Your task to perform on an android device: open app "Pandora - Music & Podcasts" (install if not already installed) and enter user name: "creator@yahoo.com" and password: "valuable" Image 0: 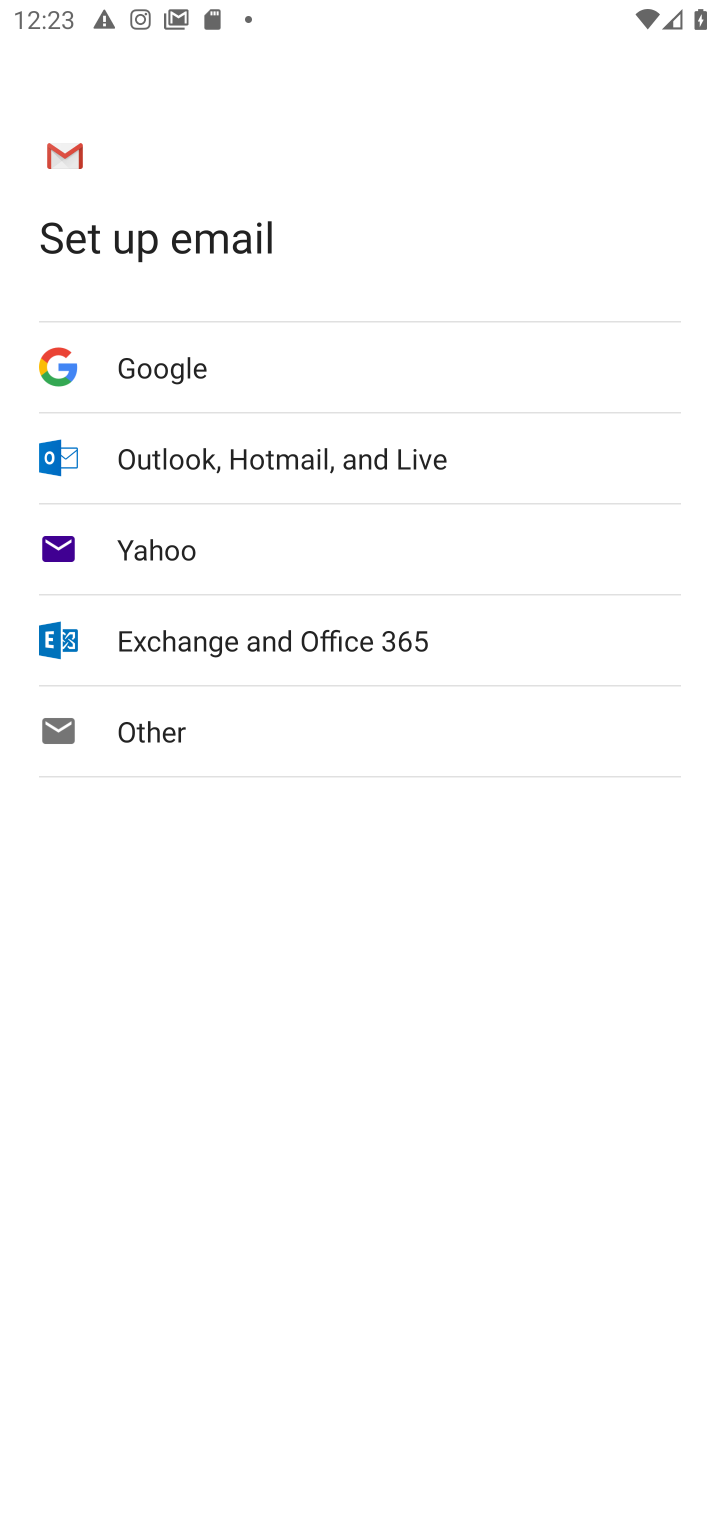
Step 0: press home button
Your task to perform on an android device: open app "Pandora - Music & Podcasts" (install if not already installed) and enter user name: "creator@yahoo.com" and password: "valuable" Image 1: 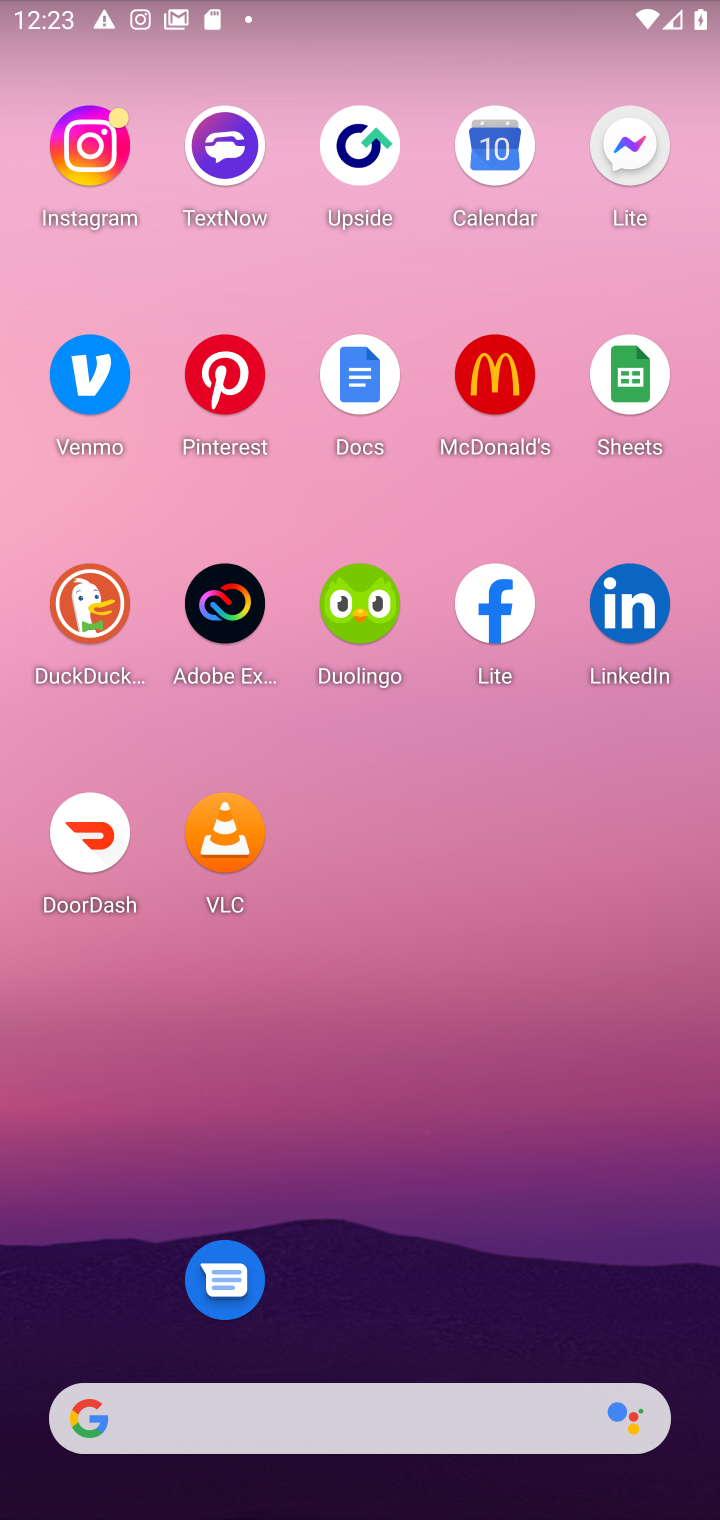
Step 1: drag from (210, 681) to (703, 687)
Your task to perform on an android device: open app "Pandora - Music & Podcasts" (install if not already installed) and enter user name: "creator@yahoo.com" and password: "valuable" Image 2: 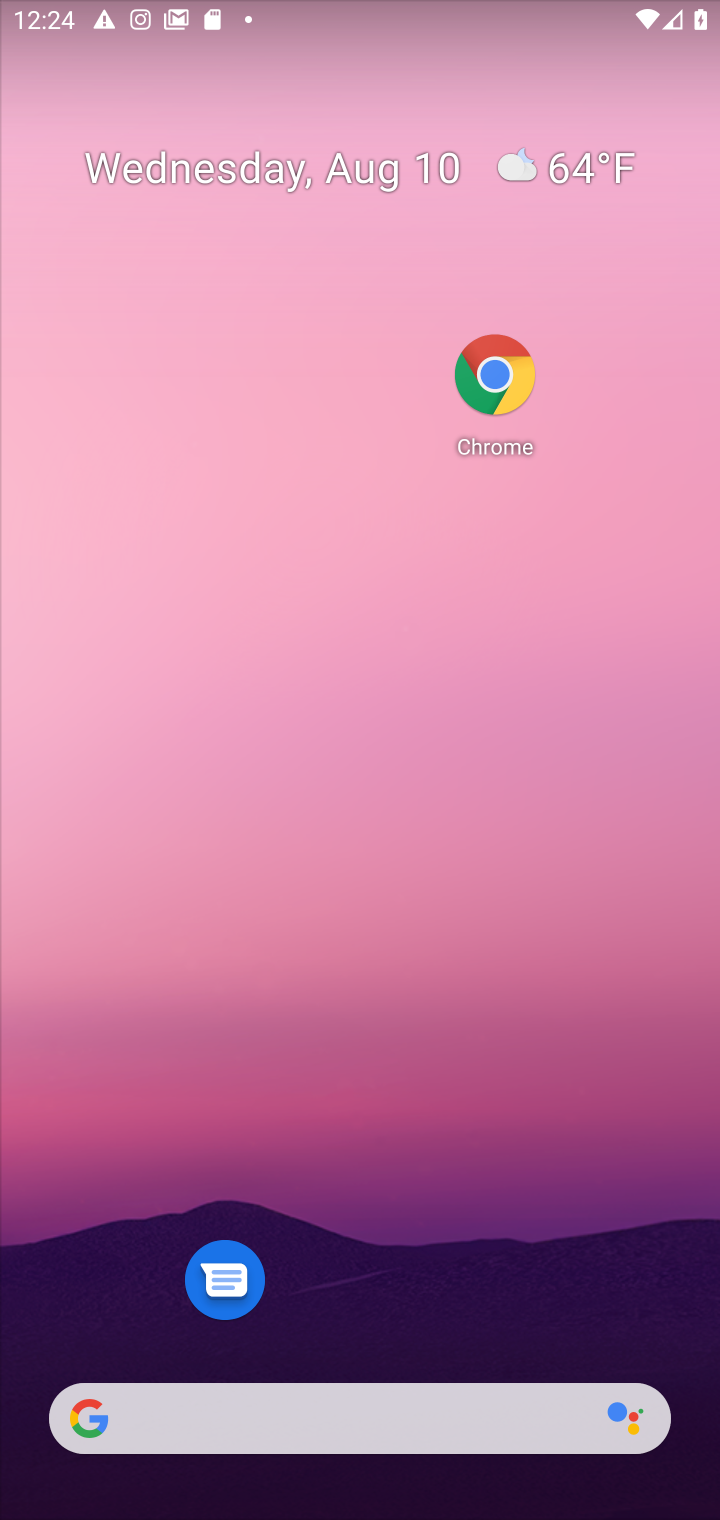
Step 2: drag from (438, 1285) to (275, 76)
Your task to perform on an android device: open app "Pandora - Music & Podcasts" (install if not already installed) and enter user name: "creator@yahoo.com" and password: "valuable" Image 3: 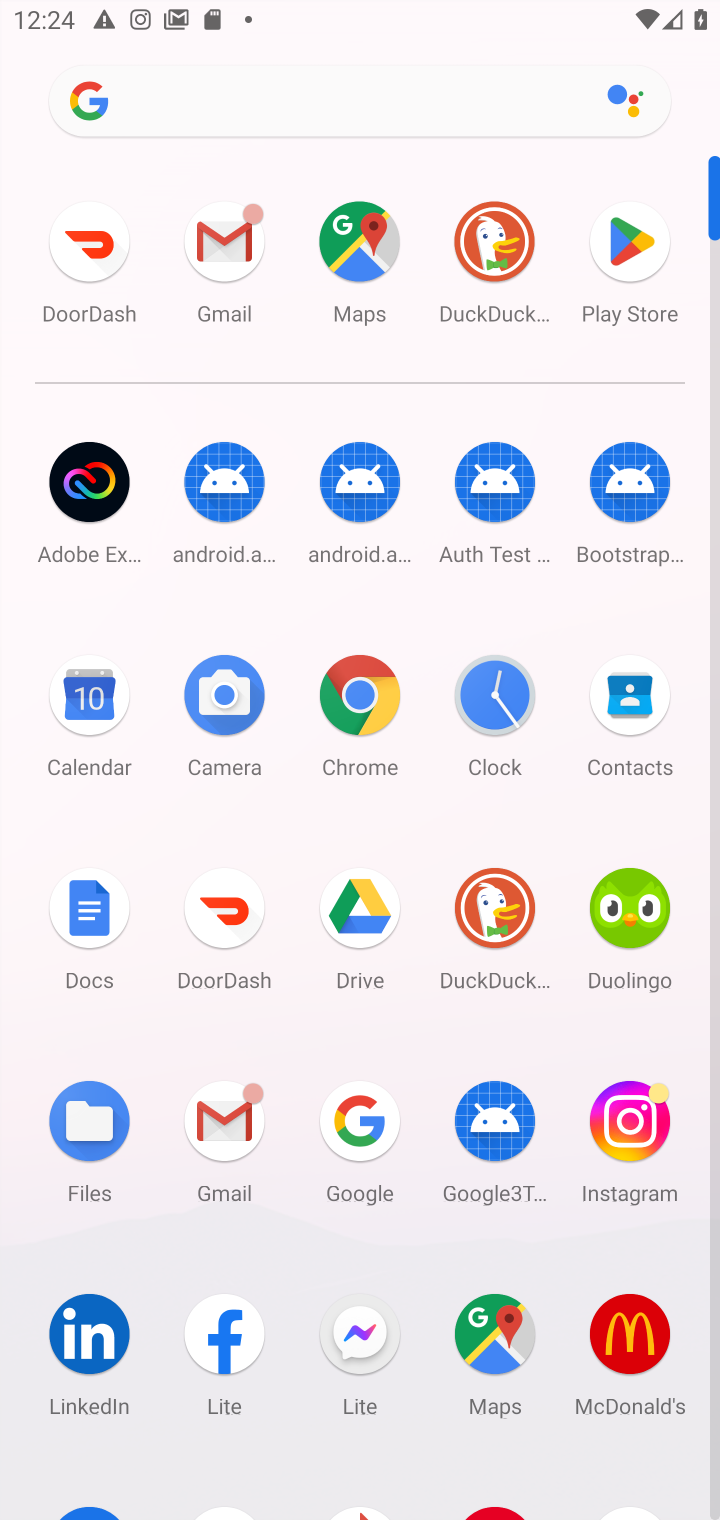
Step 3: click (626, 242)
Your task to perform on an android device: open app "Pandora - Music & Podcasts" (install if not already installed) and enter user name: "creator@yahoo.com" and password: "valuable" Image 4: 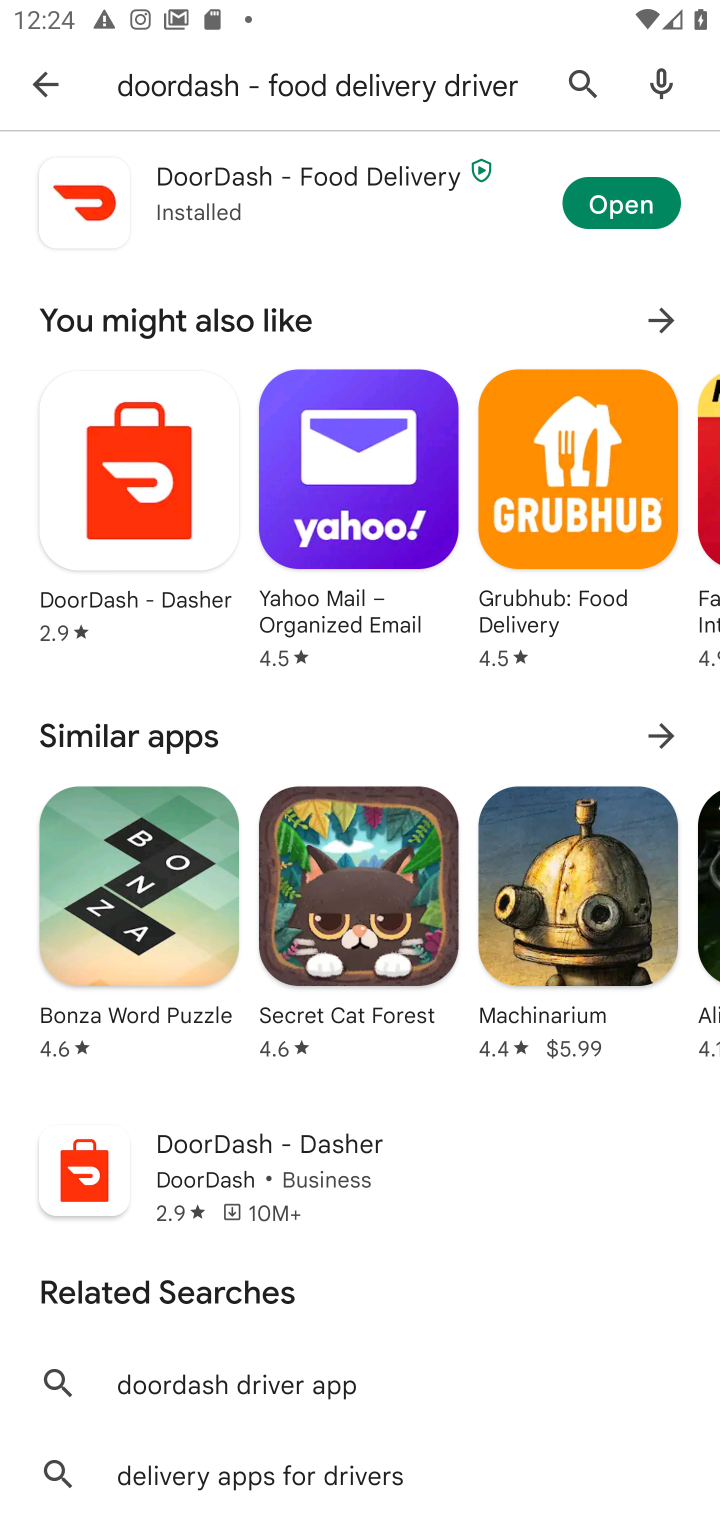
Step 4: click (565, 77)
Your task to perform on an android device: open app "Pandora - Music & Podcasts" (install if not already installed) and enter user name: "creator@yahoo.com" and password: "valuable" Image 5: 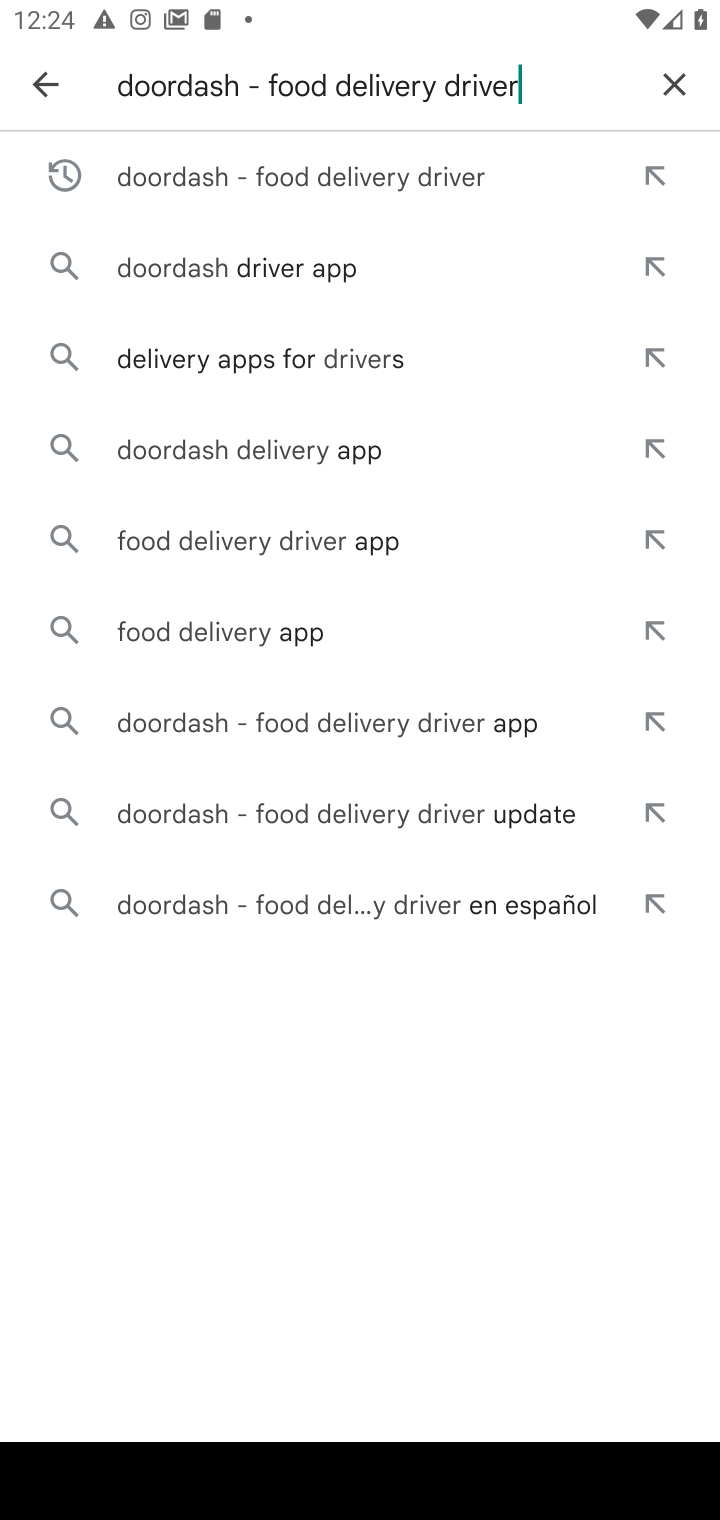
Step 5: click (673, 66)
Your task to perform on an android device: open app "Pandora - Music & Podcasts" (install if not already installed) and enter user name: "creator@yahoo.com" and password: "valuable" Image 6: 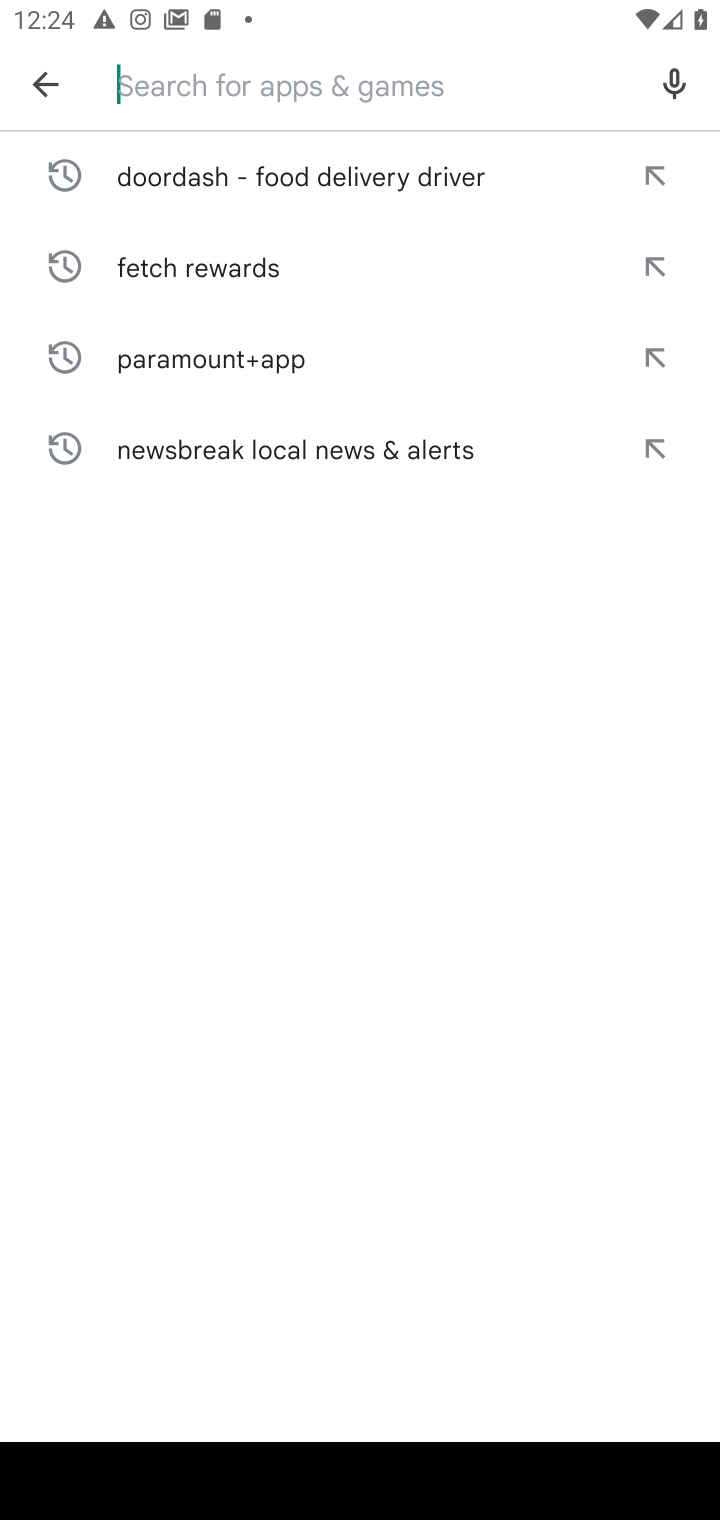
Step 6: drag from (220, 833) to (293, 864)
Your task to perform on an android device: open app "Pandora - Music & Podcasts" (install if not already installed) and enter user name: "creator@yahoo.com" and password: "valuable" Image 7: 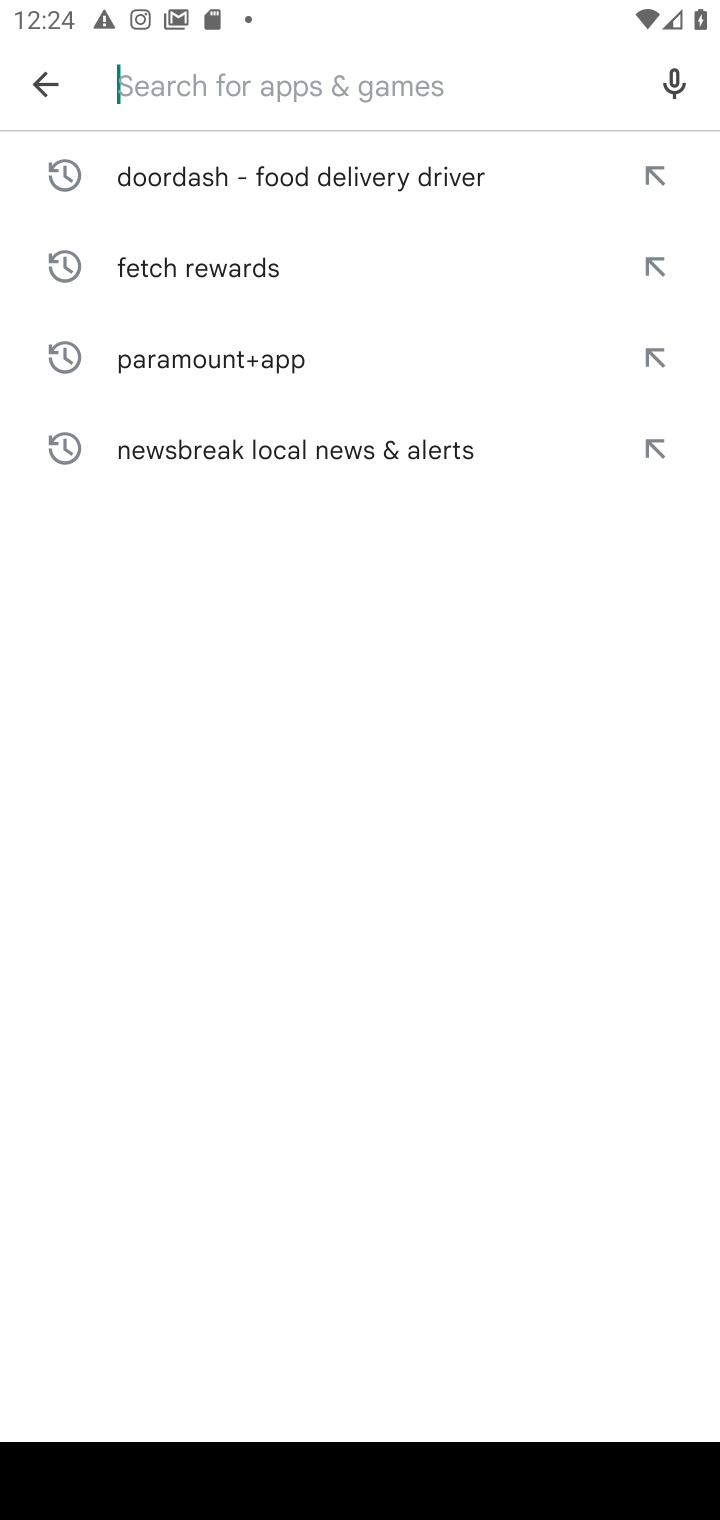
Step 7: type "Pandora - Music & Podcasts"
Your task to perform on an android device: open app "Pandora - Music & Podcasts" (install if not already installed) and enter user name: "creator@yahoo.com" and password: "valuable" Image 8: 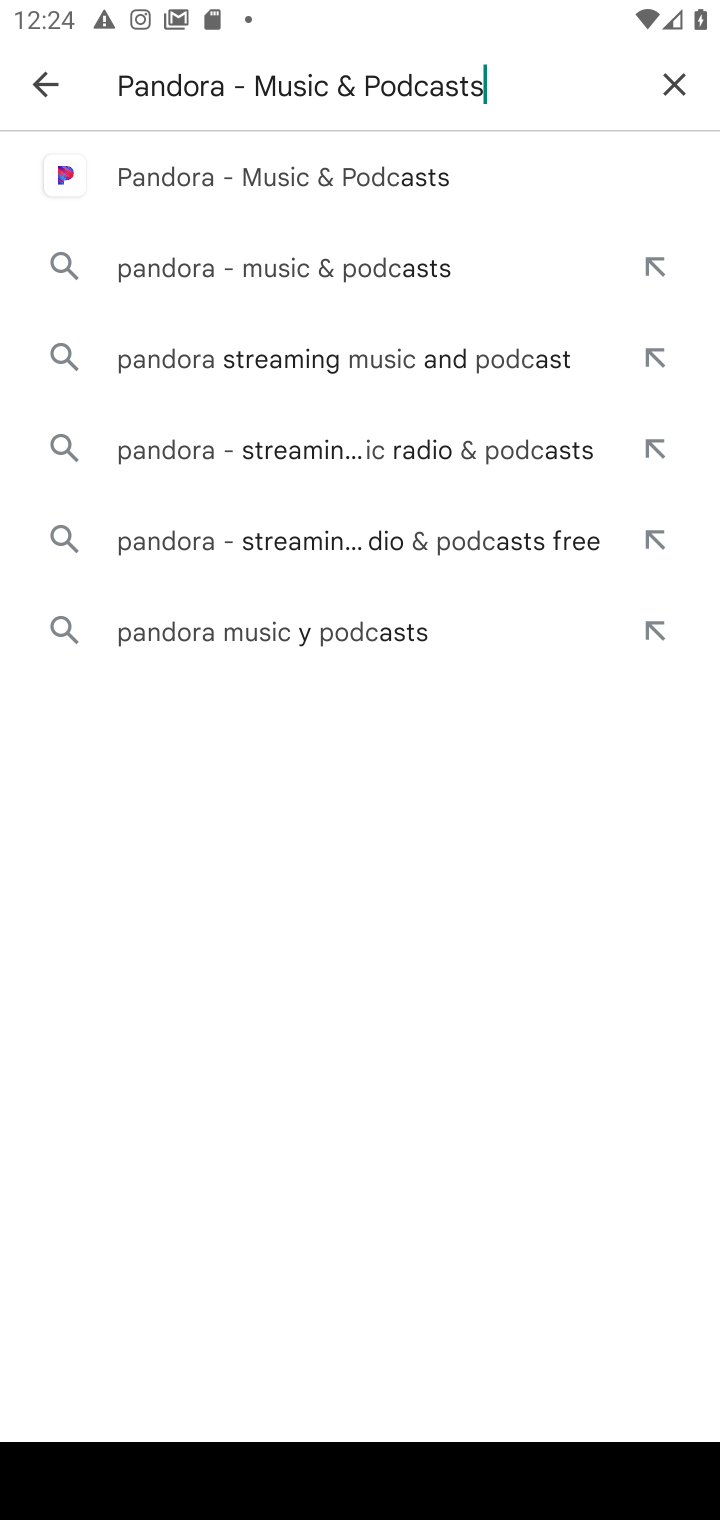
Step 8: type ""
Your task to perform on an android device: open app "Pandora - Music & Podcasts" (install if not already installed) and enter user name: "creator@yahoo.com" and password: "valuable" Image 9: 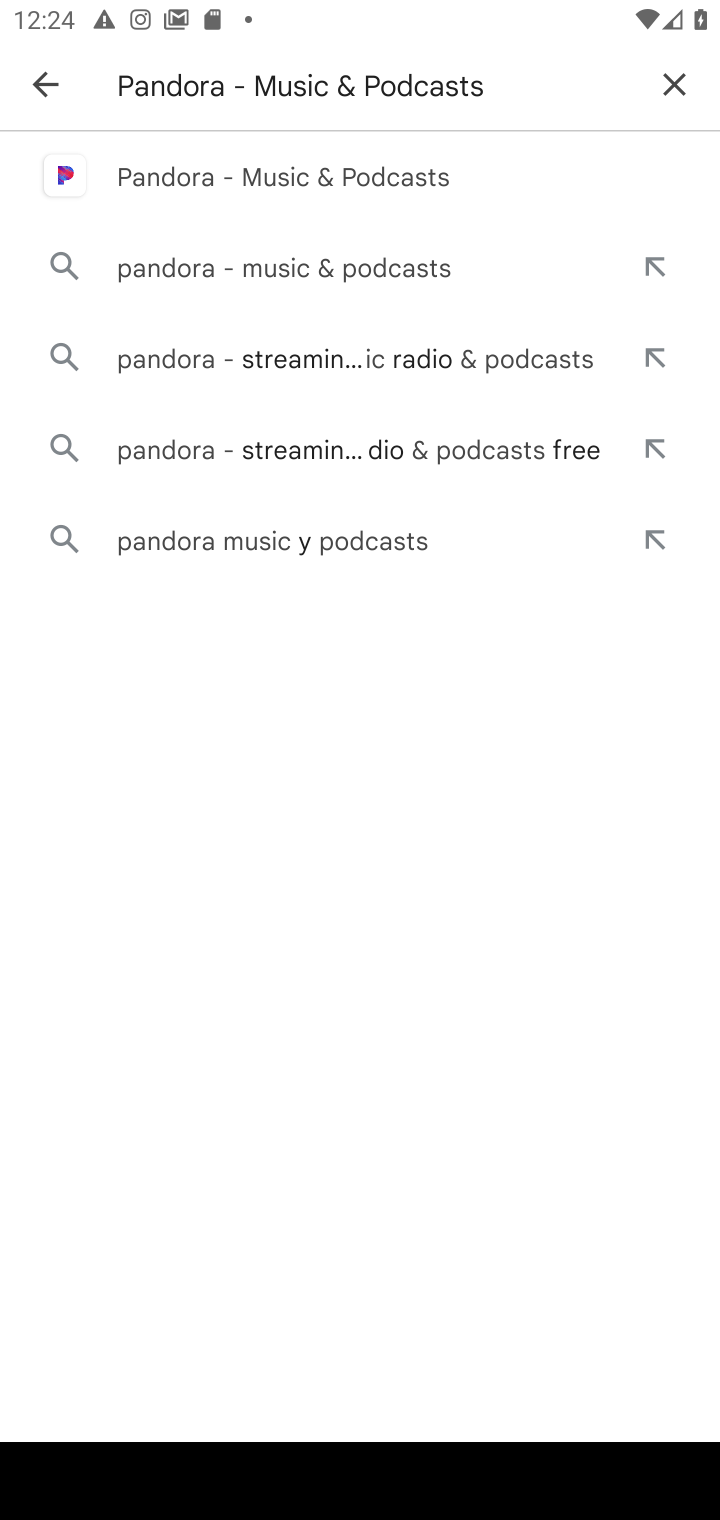
Step 9: click (188, 207)
Your task to perform on an android device: open app "Pandora - Music & Podcasts" (install if not already installed) and enter user name: "creator@yahoo.com" and password: "valuable" Image 10: 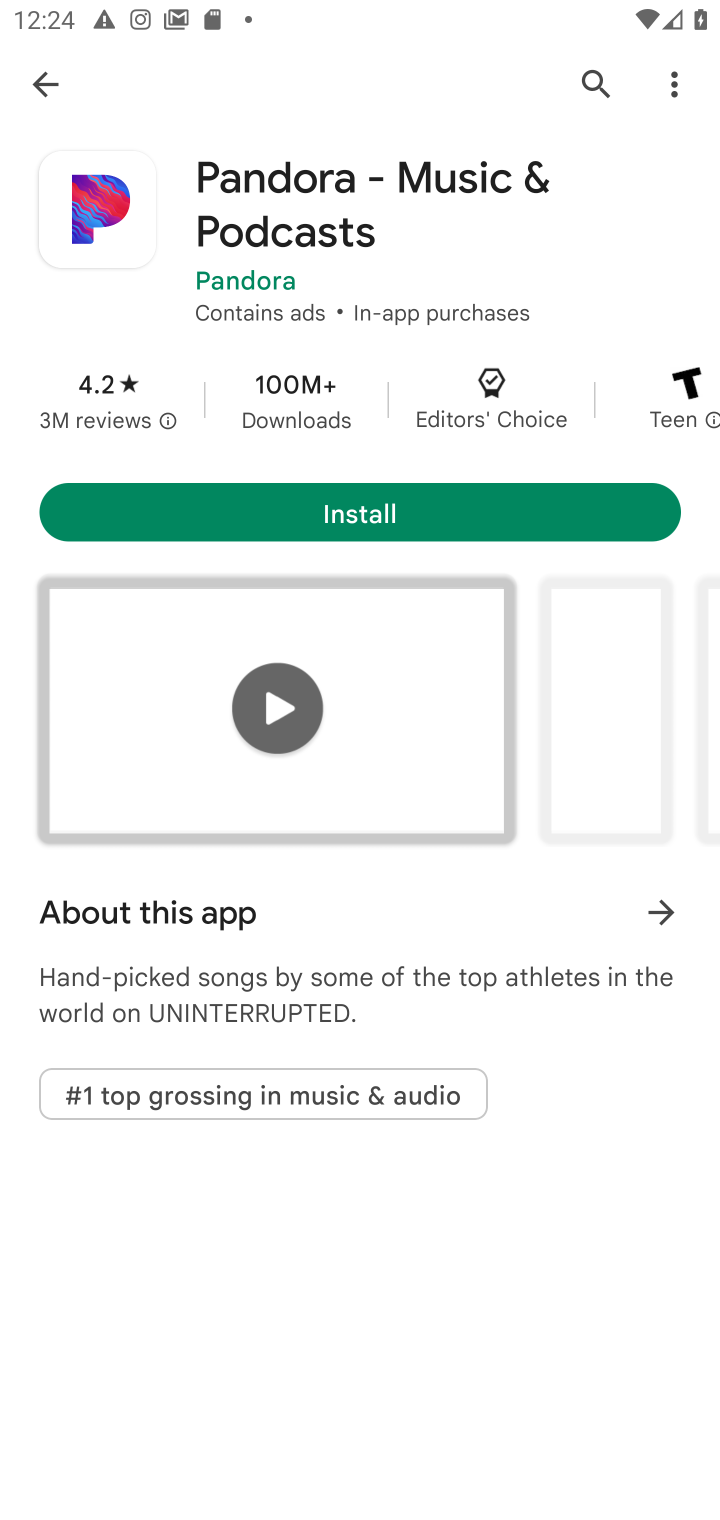
Step 10: click (256, 498)
Your task to perform on an android device: open app "Pandora - Music & Podcasts" (install if not already installed) and enter user name: "creator@yahoo.com" and password: "valuable" Image 11: 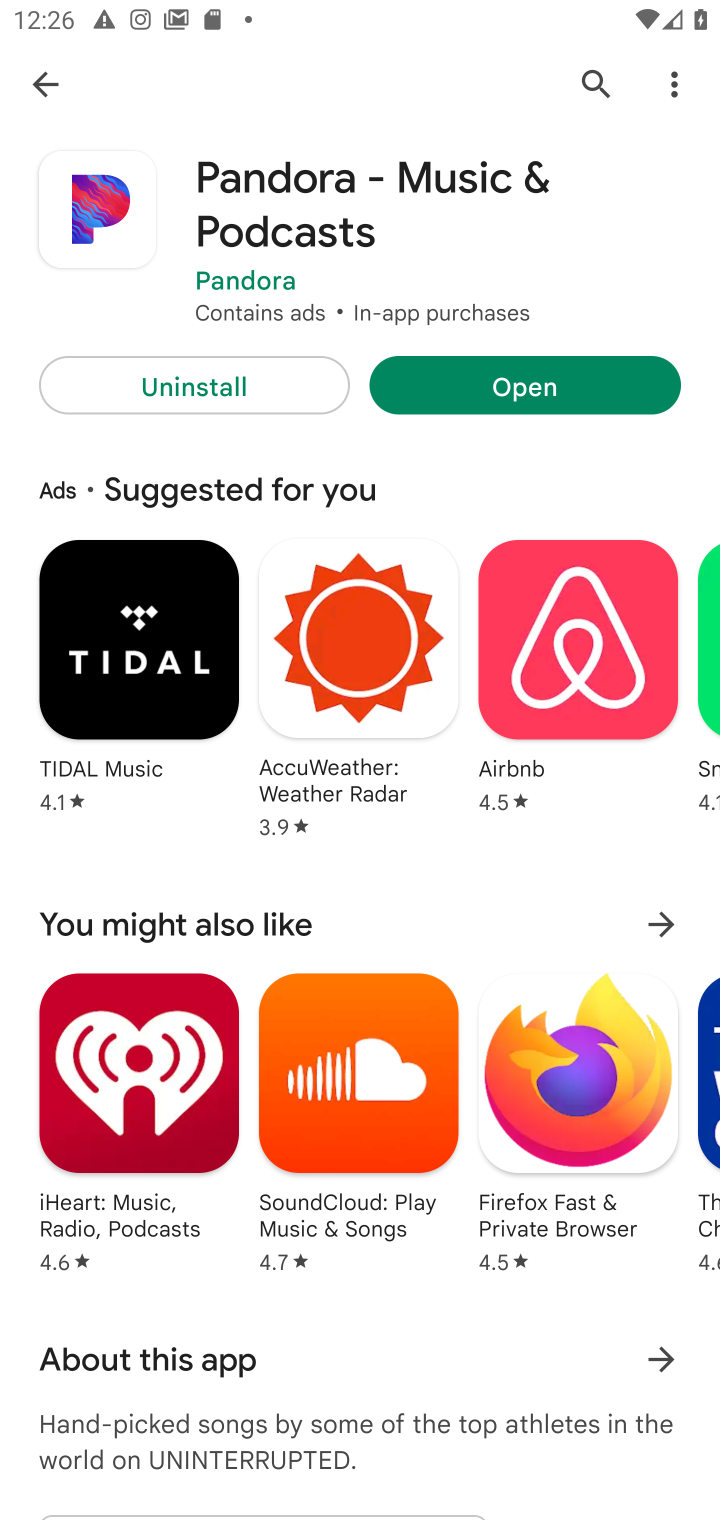
Step 11: click (545, 382)
Your task to perform on an android device: open app "Pandora - Music & Podcasts" (install if not already installed) and enter user name: "creator@yahoo.com" and password: "valuable" Image 12: 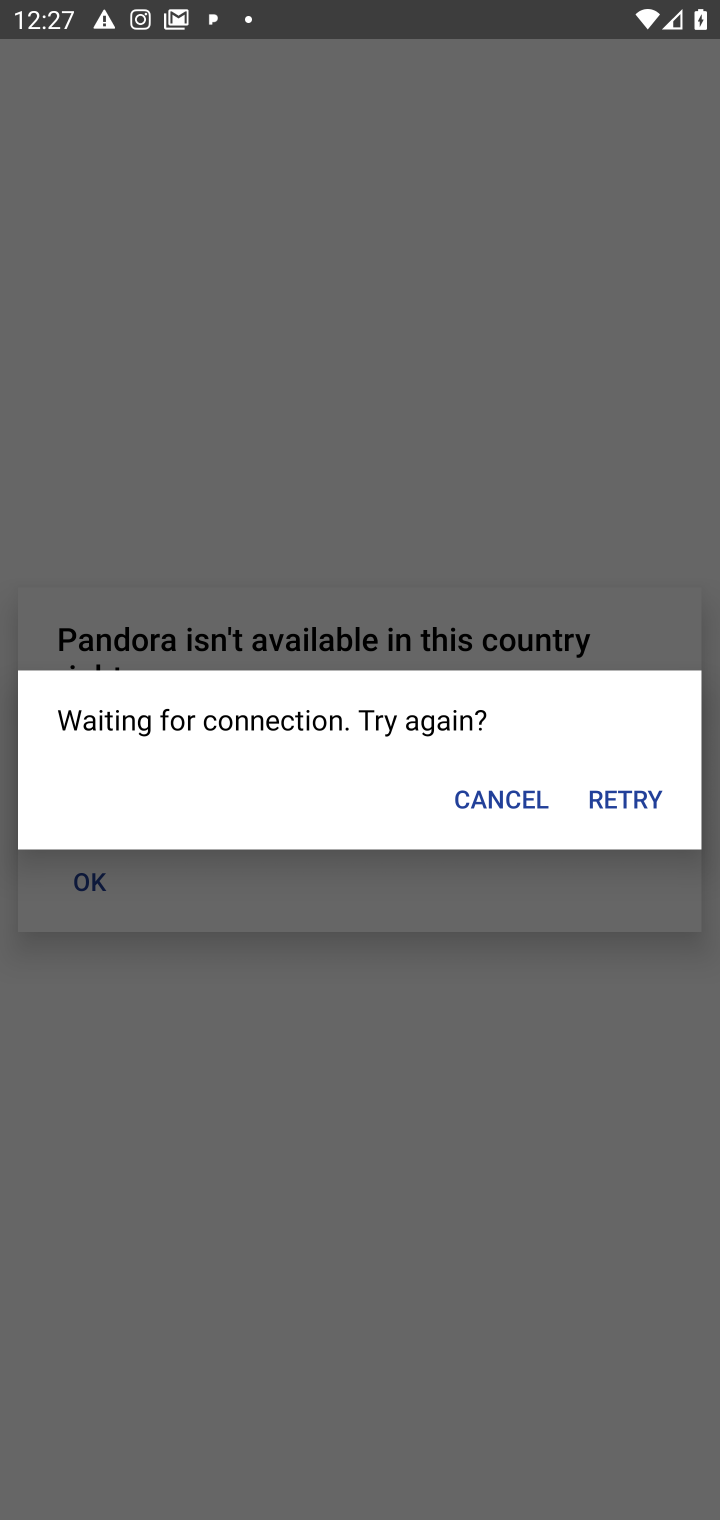
Step 12: click (603, 803)
Your task to perform on an android device: open app "Pandora - Music & Podcasts" (install if not already installed) and enter user name: "creator@yahoo.com" and password: "valuable" Image 13: 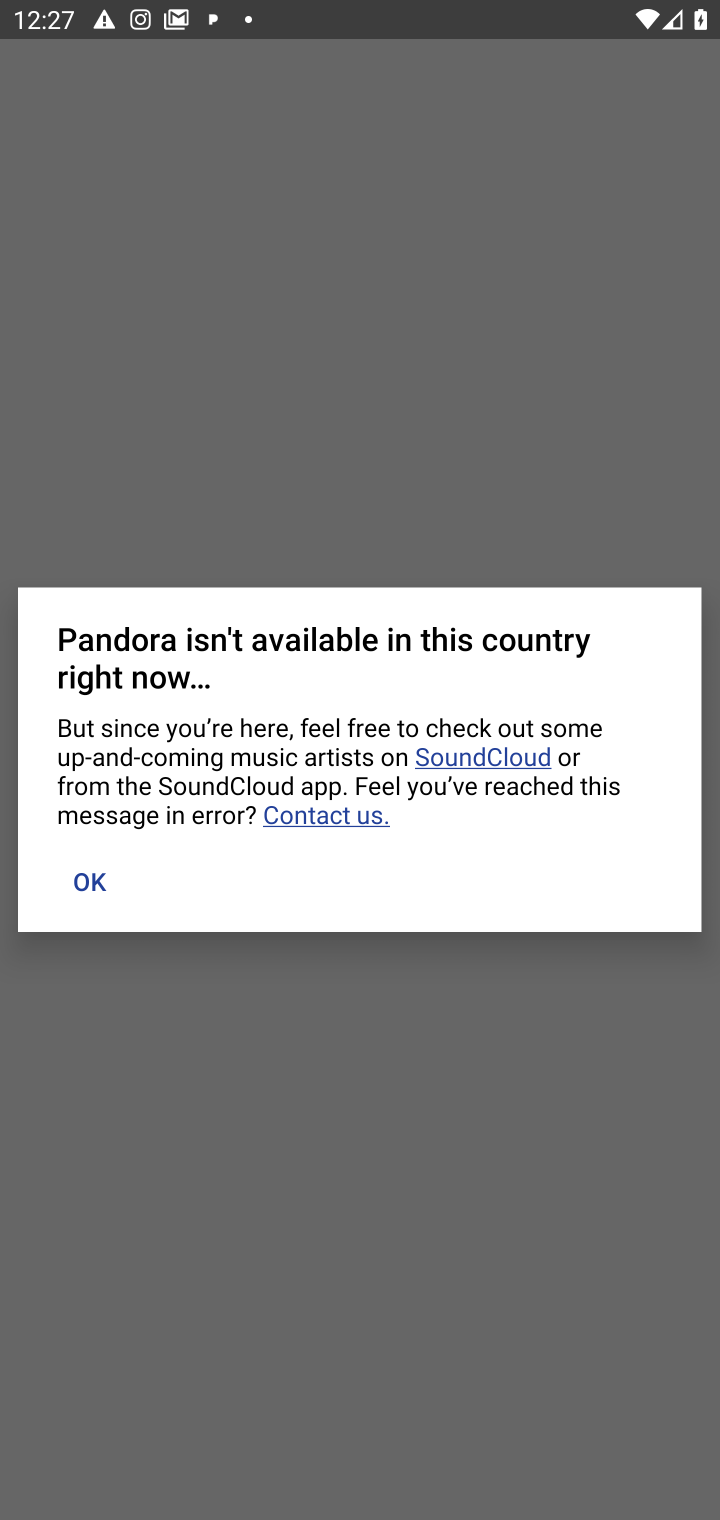
Step 13: click (51, 889)
Your task to perform on an android device: open app "Pandora - Music & Podcasts" (install if not already installed) and enter user name: "creator@yahoo.com" and password: "valuable" Image 14: 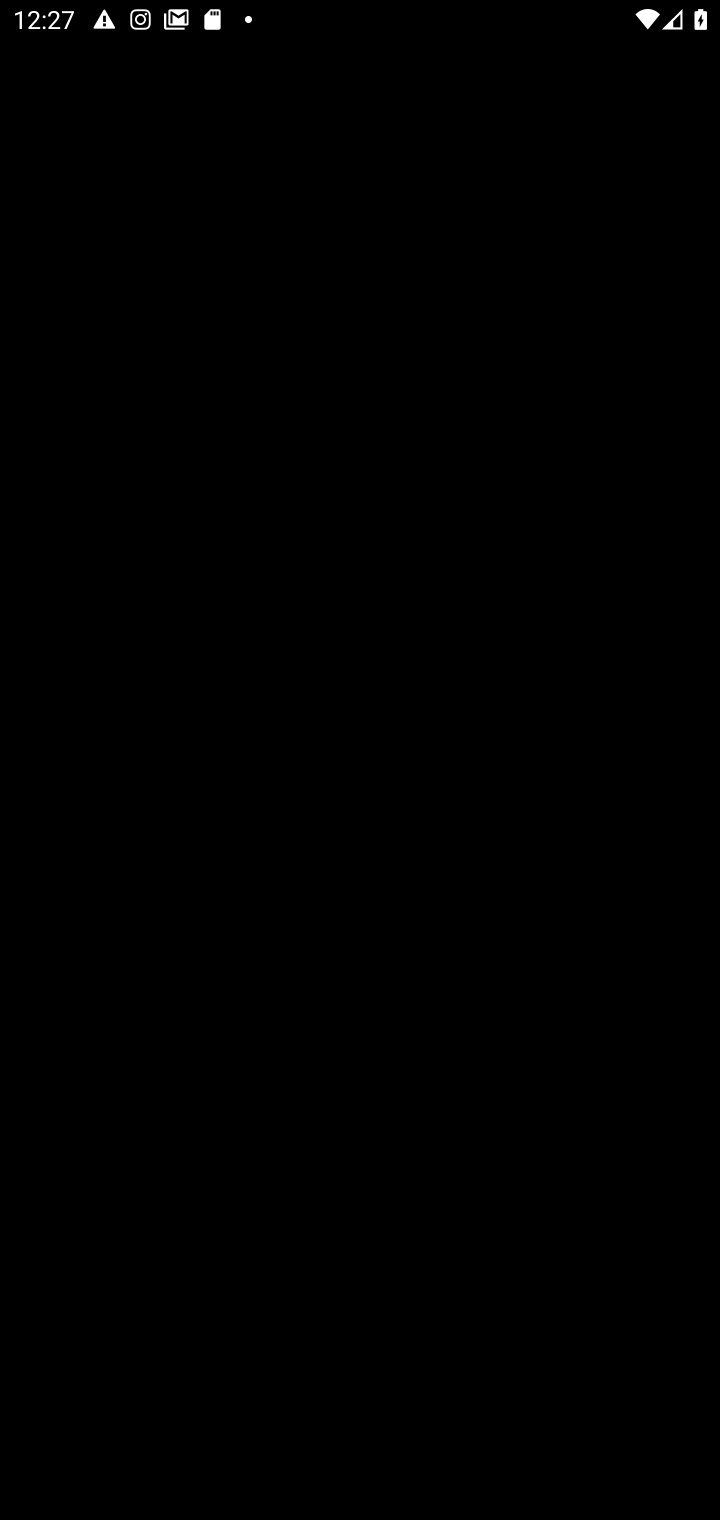
Step 14: task complete